Your task to perform on an android device: Go to Google maps Image 0: 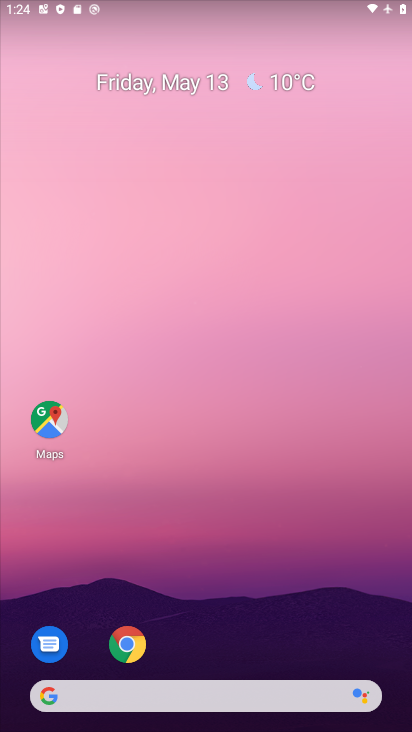
Step 0: drag from (216, 665) to (216, 164)
Your task to perform on an android device: Go to Google maps Image 1: 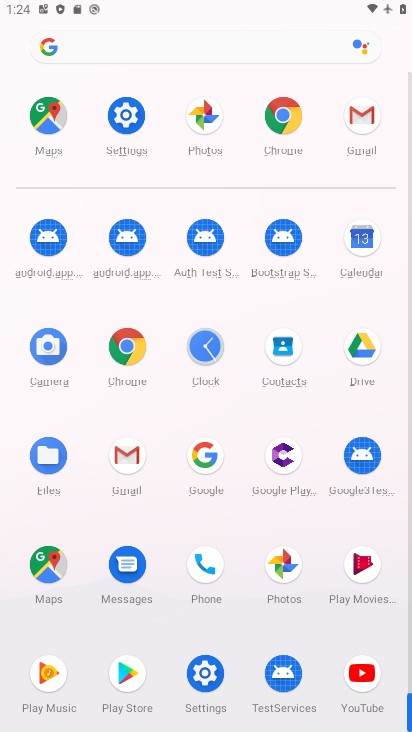
Step 1: click (45, 119)
Your task to perform on an android device: Go to Google maps Image 2: 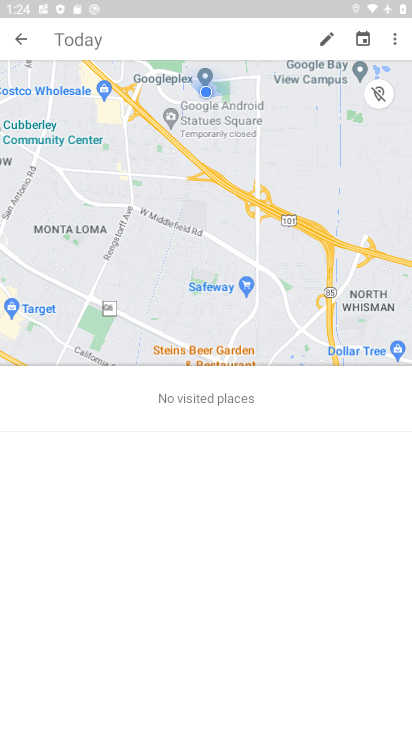
Step 2: click (15, 37)
Your task to perform on an android device: Go to Google maps Image 3: 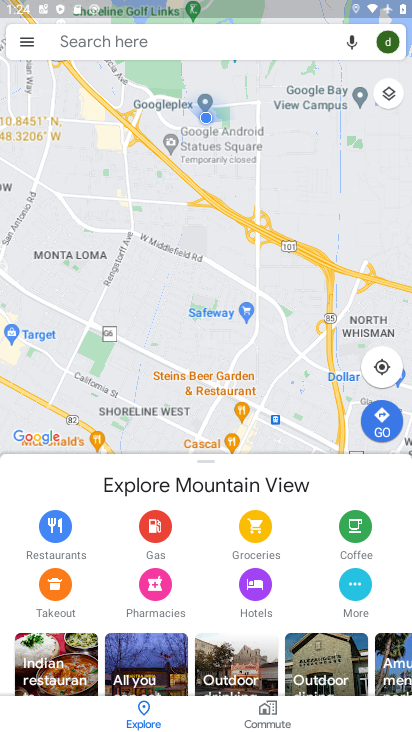
Step 3: task complete